Your task to perform on an android device: Open calendar and show me the fourth week of next month Image 0: 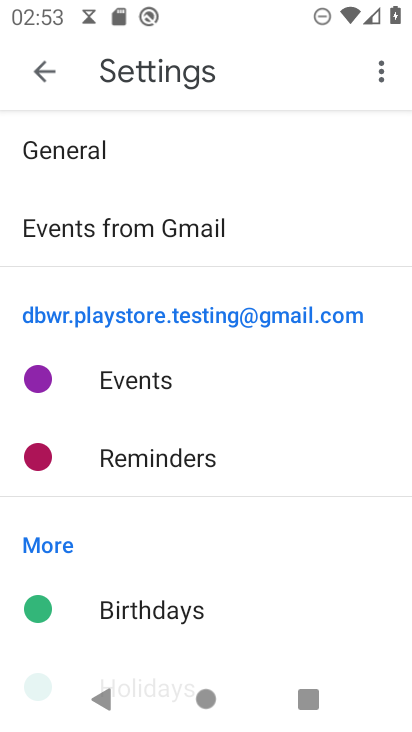
Step 0: press home button
Your task to perform on an android device: Open calendar and show me the fourth week of next month Image 1: 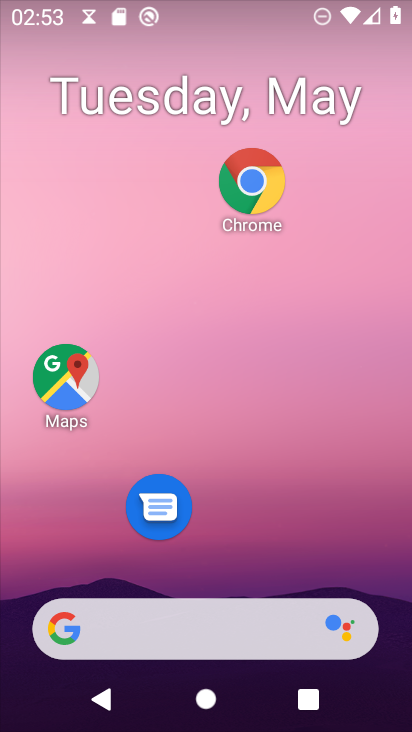
Step 1: drag from (299, 550) to (325, 149)
Your task to perform on an android device: Open calendar and show me the fourth week of next month Image 2: 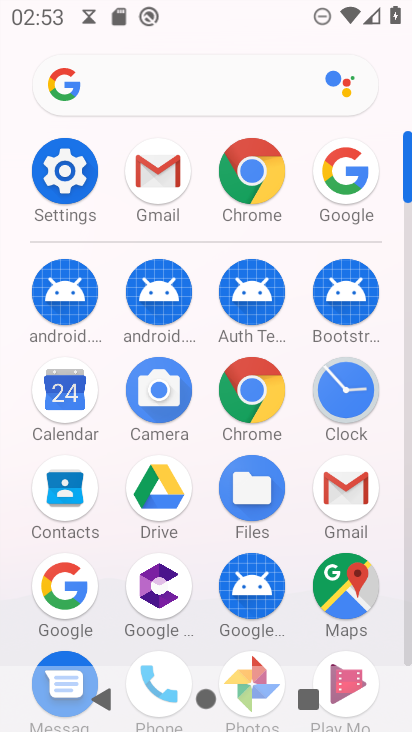
Step 2: click (61, 382)
Your task to perform on an android device: Open calendar and show me the fourth week of next month Image 3: 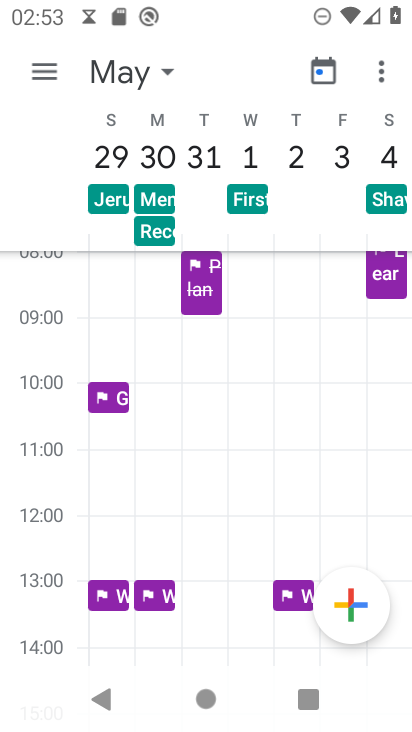
Step 3: click (47, 63)
Your task to perform on an android device: Open calendar and show me the fourth week of next month Image 4: 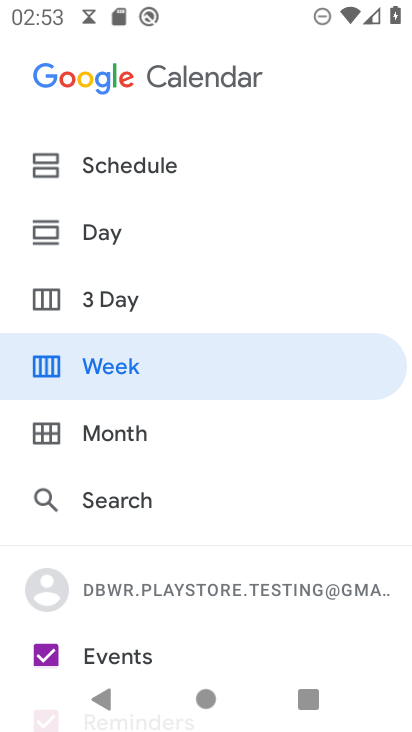
Step 4: click (136, 430)
Your task to perform on an android device: Open calendar and show me the fourth week of next month Image 5: 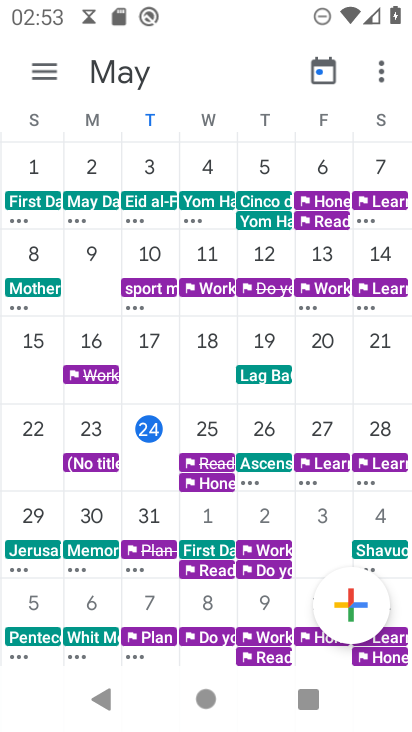
Step 5: task complete